Your task to perform on an android device: toggle pop-ups in chrome Image 0: 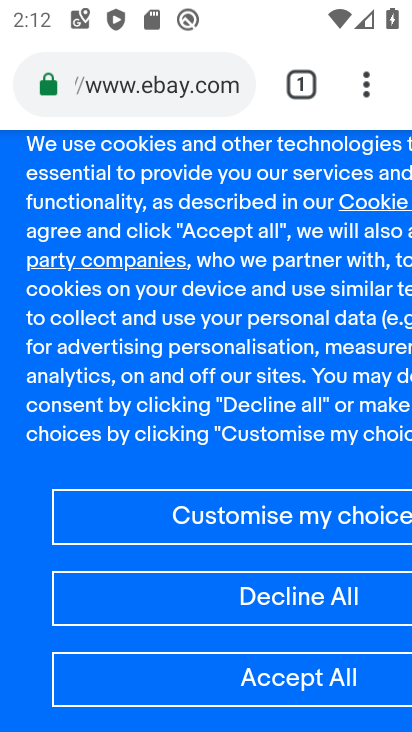
Step 0: press home button
Your task to perform on an android device: toggle pop-ups in chrome Image 1: 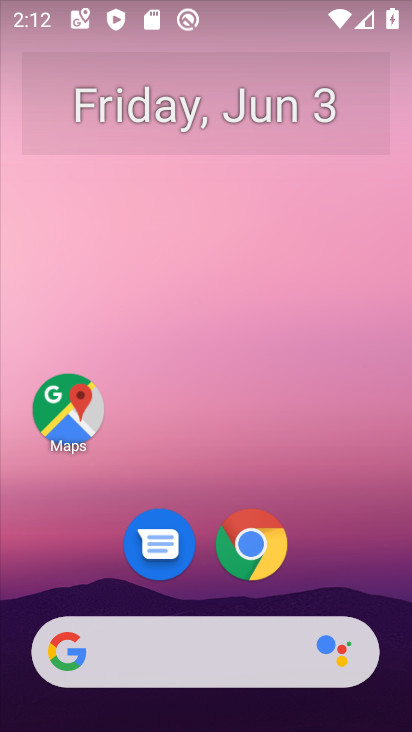
Step 1: drag from (357, 564) to (349, 173)
Your task to perform on an android device: toggle pop-ups in chrome Image 2: 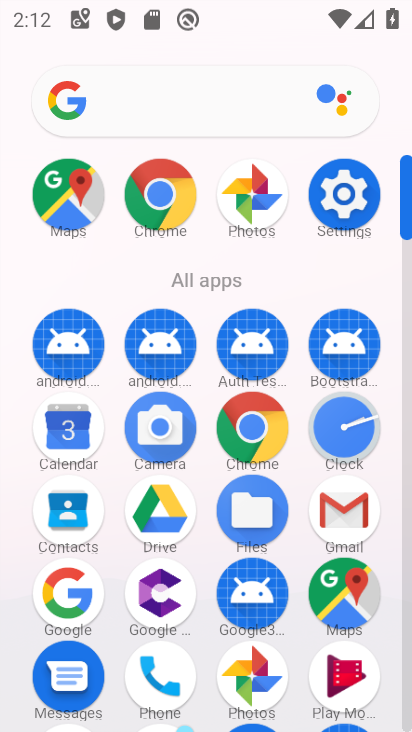
Step 2: click (355, 207)
Your task to perform on an android device: toggle pop-ups in chrome Image 3: 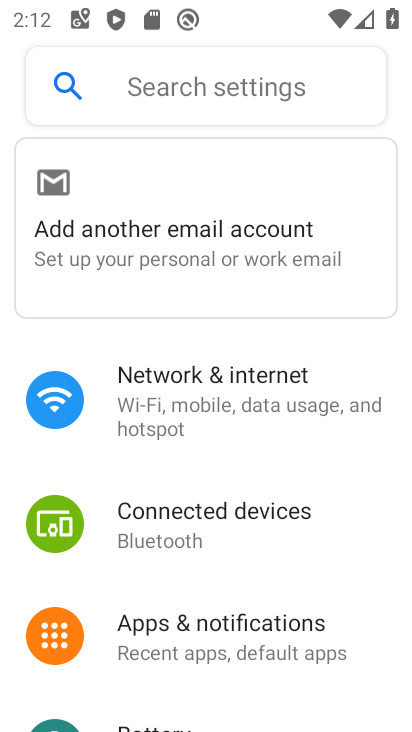
Step 3: drag from (258, 654) to (254, 339)
Your task to perform on an android device: toggle pop-ups in chrome Image 4: 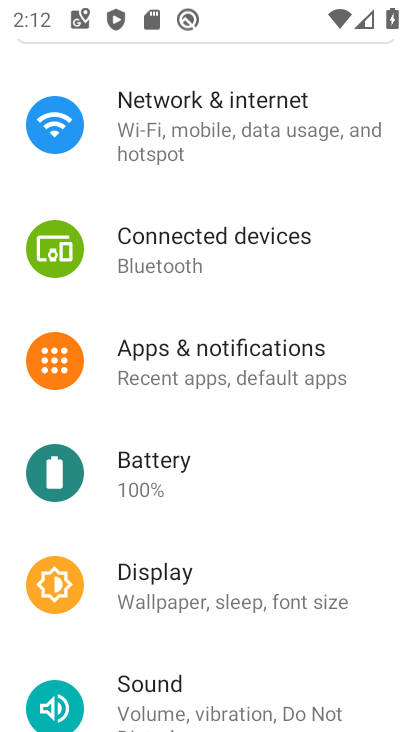
Step 4: drag from (292, 650) to (342, 305)
Your task to perform on an android device: toggle pop-ups in chrome Image 5: 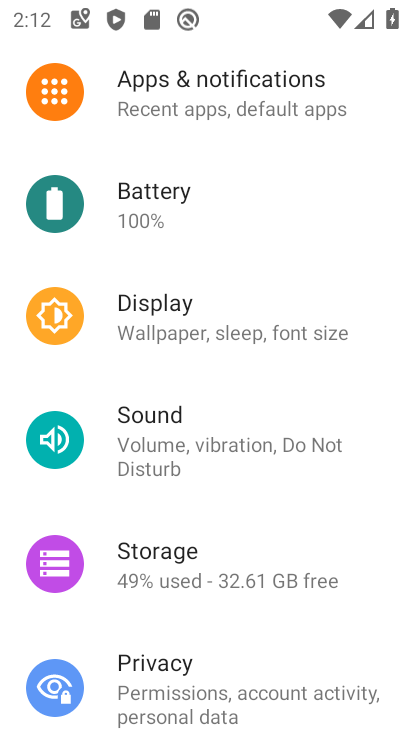
Step 5: drag from (285, 206) to (298, 712)
Your task to perform on an android device: toggle pop-ups in chrome Image 6: 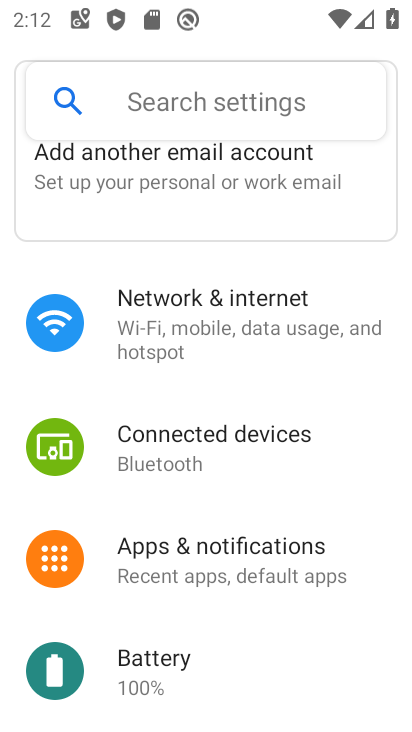
Step 6: press home button
Your task to perform on an android device: toggle pop-ups in chrome Image 7: 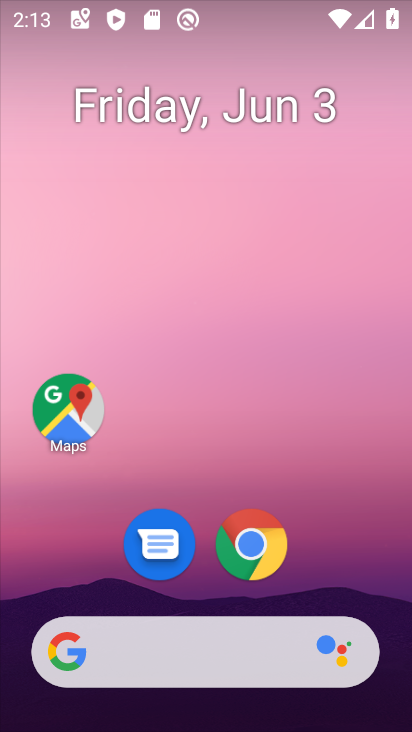
Step 7: drag from (364, 561) to (329, 127)
Your task to perform on an android device: toggle pop-ups in chrome Image 8: 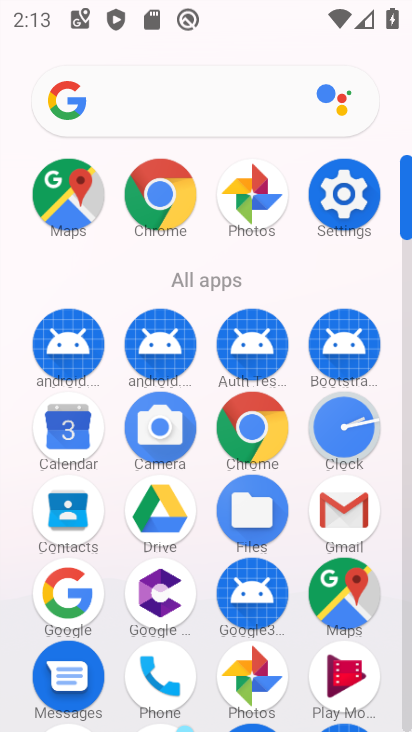
Step 8: click (242, 423)
Your task to perform on an android device: toggle pop-ups in chrome Image 9: 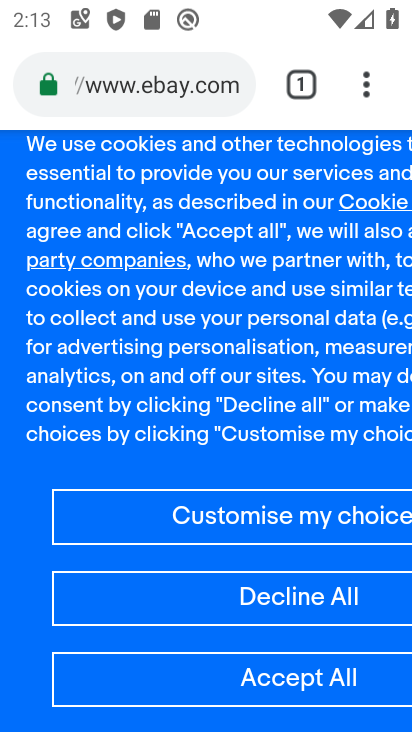
Step 9: drag from (372, 89) to (163, 595)
Your task to perform on an android device: toggle pop-ups in chrome Image 10: 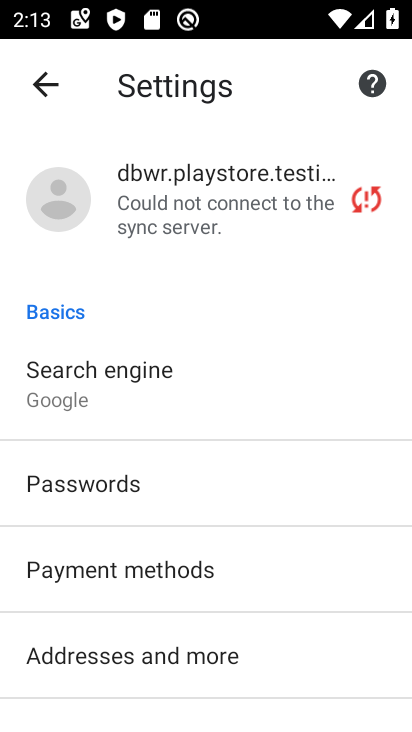
Step 10: drag from (236, 651) to (247, 404)
Your task to perform on an android device: toggle pop-ups in chrome Image 11: 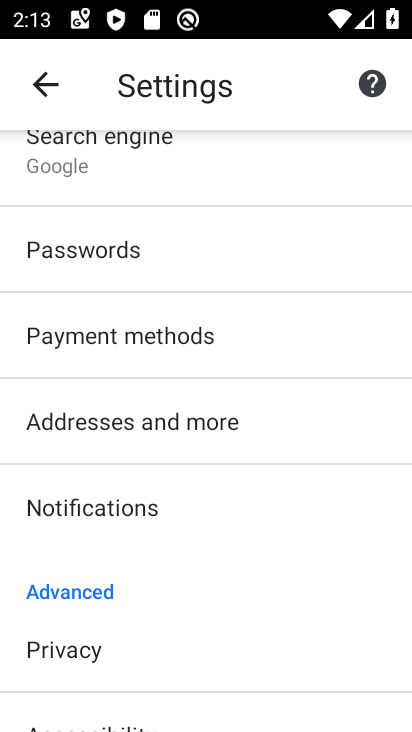
Step 11: drag from (202, 673) to (255, 340)
Your task to perform on an android device: toggle pop-ups in chrome Image 12: 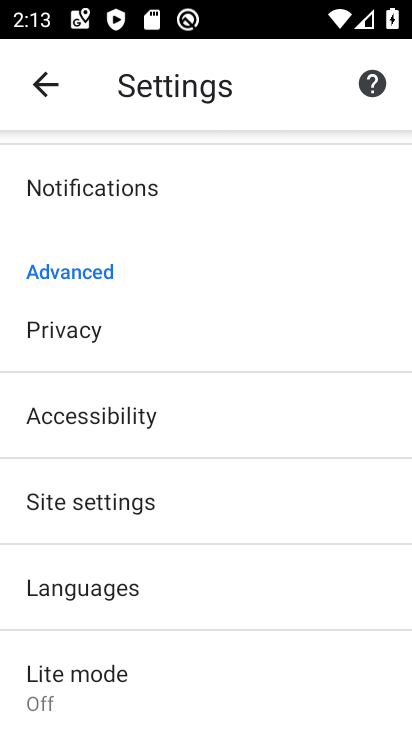
Step 12: drag from (207, 647) to (244, 328)
Your task to perform on an android device: toggle pop-ups in chrome Image 13: 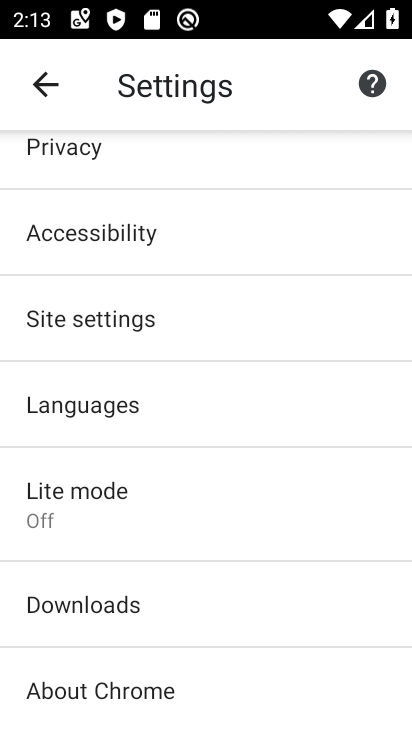
Step 13: click (142, 322)
Your task to perform on an android device: toggle pop-ups in chrome Image 14: 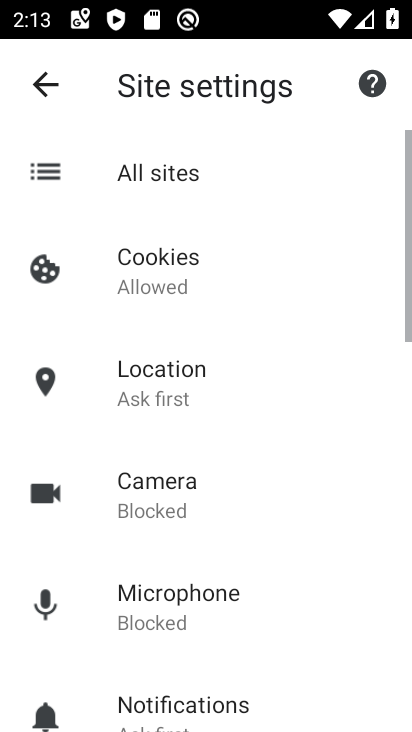
Step 14: drag from (274, 634) to (275, 303)
Your task to perform on an android device: toggle pop-ups in chrome Image 15: 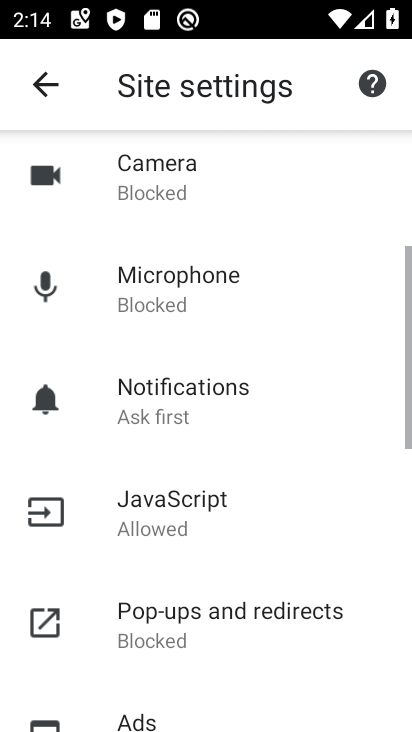
Step 15: drag from (279, 646) to (323, 324)
Your task to perform on an android device: toggle pop-ups in chrome Image 16: 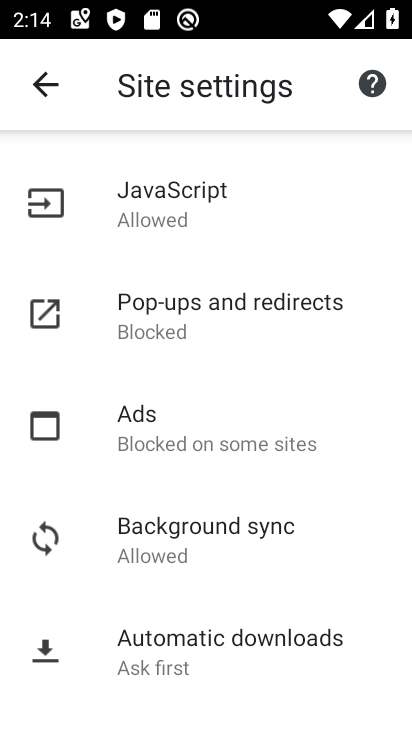
Step 16: click (330, 309)
Your task to perform on an android device: toggle pop-ups in chrome Image 17: 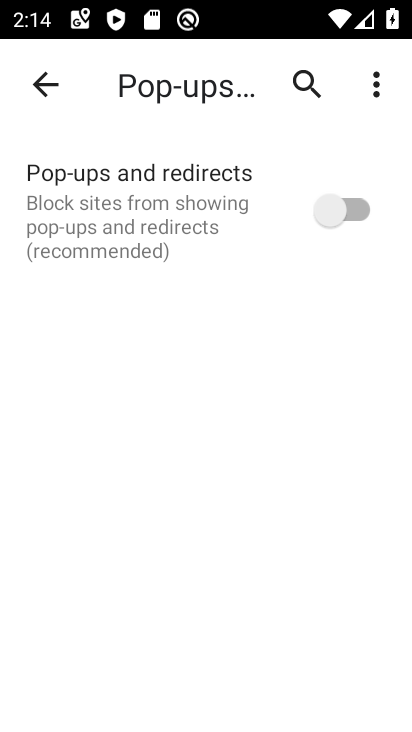
Step 17: click (362, 209)
Your task to perform on an android device: toggle pop-ups in chrome Image 18: 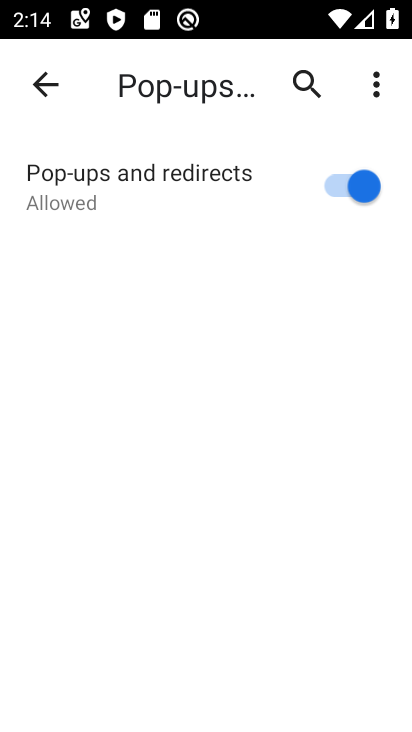
Step 18: task complete